Your task to perform on an android device: Look up the best gaming chair on Best Buy. Image 0: 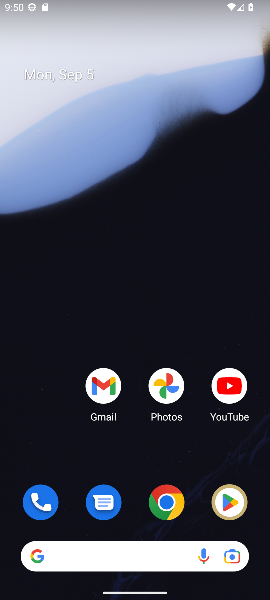
Step 0: drag from (195, 457) to (97, 35)
Your task to perform on an android device: Look up the best gaming chair on Best Buy. Image 1: 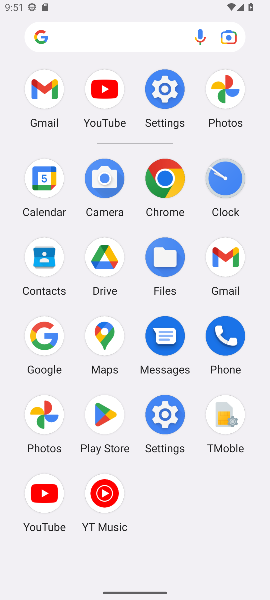
Step 1: click (49, 337)
Your task to perform on an android device: Look up the best gaming chair on Best Buy. Image 2: 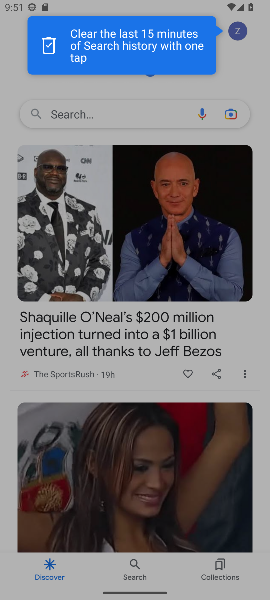
Step 2: click (86, 118)
Your task to perform on an android device: Look up the best gaming chair on Best Buy. Image 3: 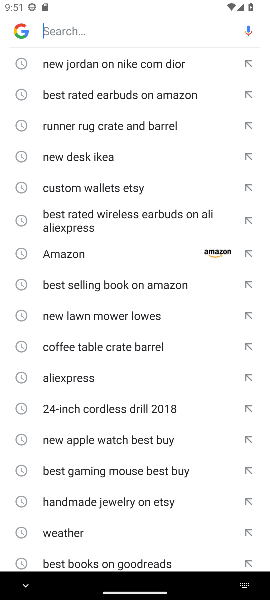
Step 3: type ""
Your task to perform on an android device: Look up the best gaming chair on Best Buy. Image 4: 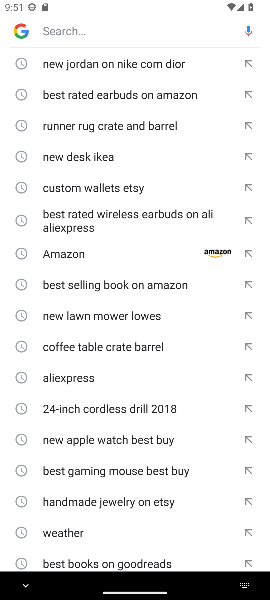
Step 4: type "best gaming chair on Best Buy"
Your task to perform on an android device: Look up the best gaming chair on Best Buy. Image 5: 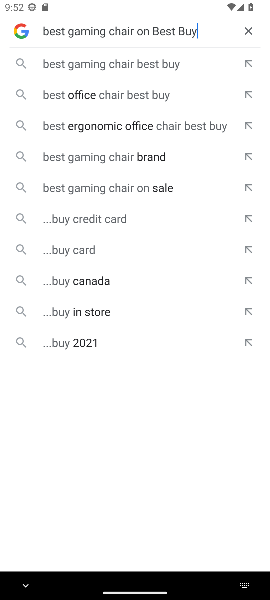
Step 5: click (146, 64)
Your task to perform on an android device: Look up the best gaming chair on Best Buy. Image 6: 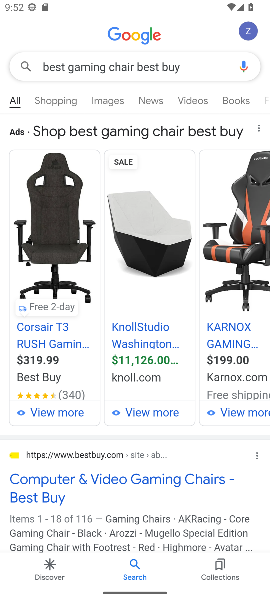
Step 6: task complete